Your task to perform on an android device: Go to Reddit.com Image 0: 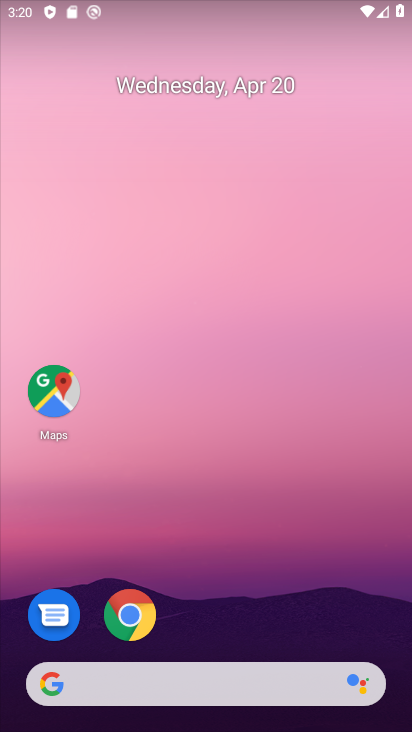
Step 0: click (208, 681)
Your task to perform on an android device: Go to Reddit.com Image 1: 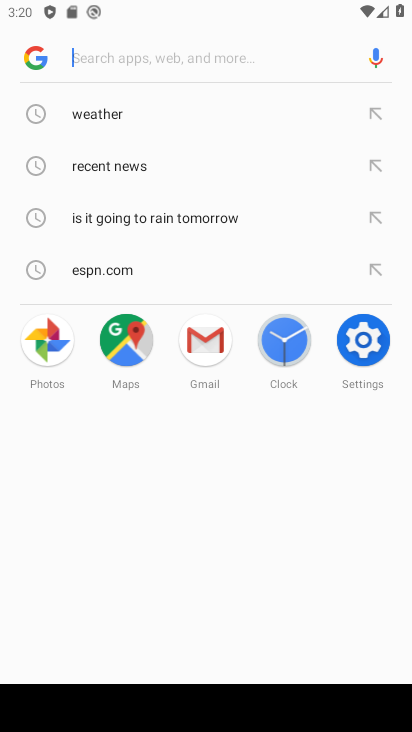
Step 1: click (150, 57)
Your task to perform on an android device: Go to Reddit.com Image 2: 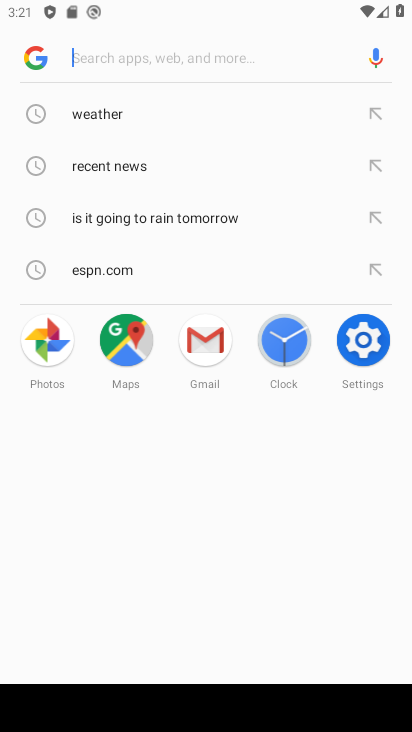
Step 2: type "Reddit.com"
Your task to perform on an android device: Go to Reddit.com Image 3: 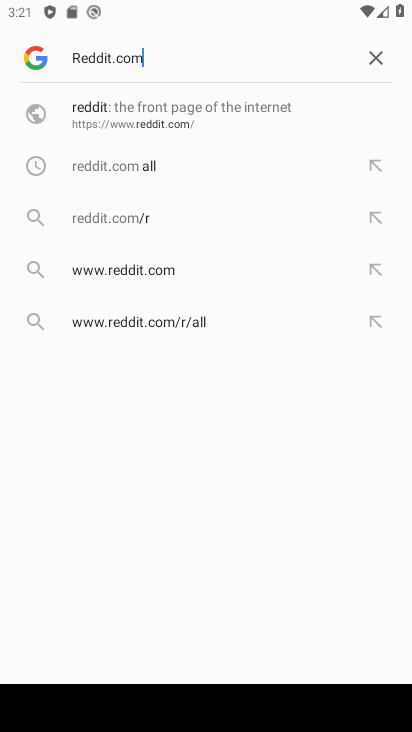
Step 3: click (190, 118)
Your task to perform on an android device: Go to Reddit.com Image 4: 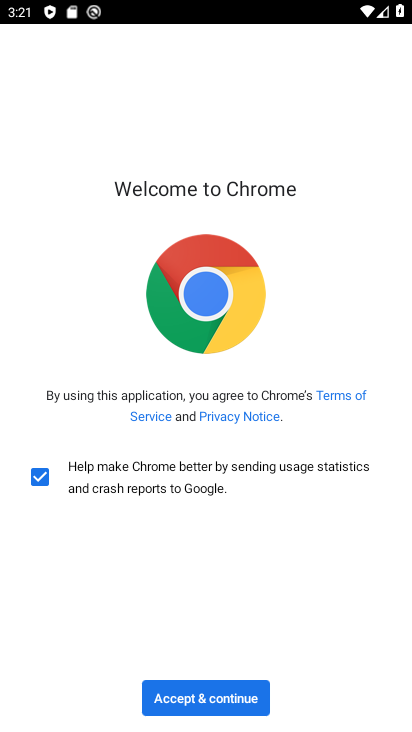
Step 4: click (241, 689)
Your task to perform on an android device: Go to Reddit.com Image 5: 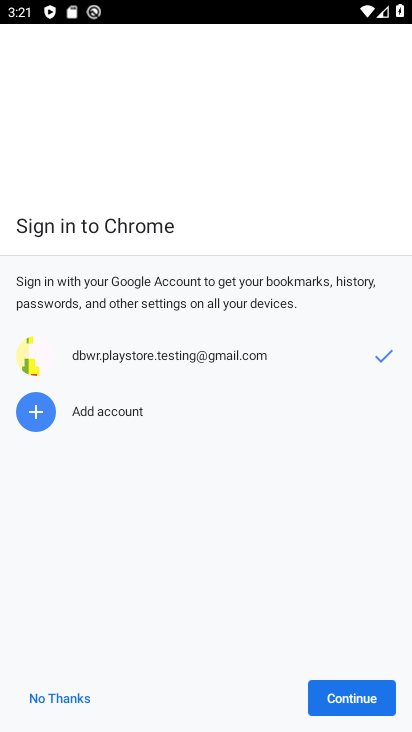
Step 5: click (349, 701)
Your task to perform on an android device: Go to Reddit.com Image 6: 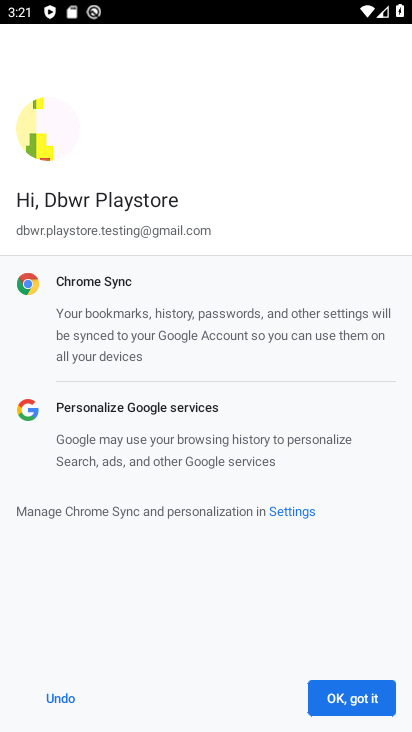
Step 6: click (346, 692)
Your task to perform on an android device: Go to Reddit.com Image 7: 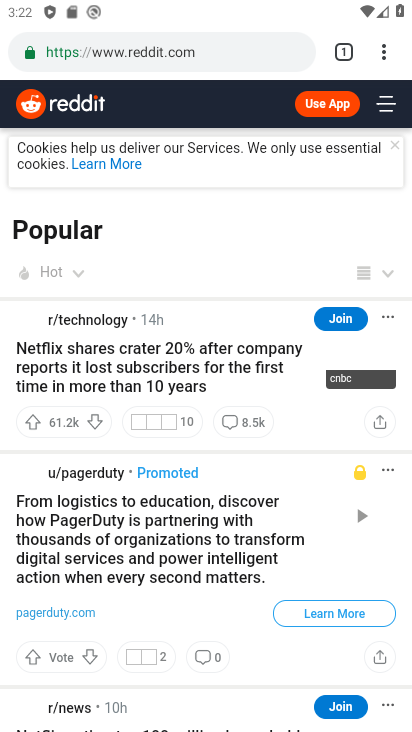
Step 7: task complete